Your task to perform on an android device: read, delete, or share a saved page in the chrome app Image 0: 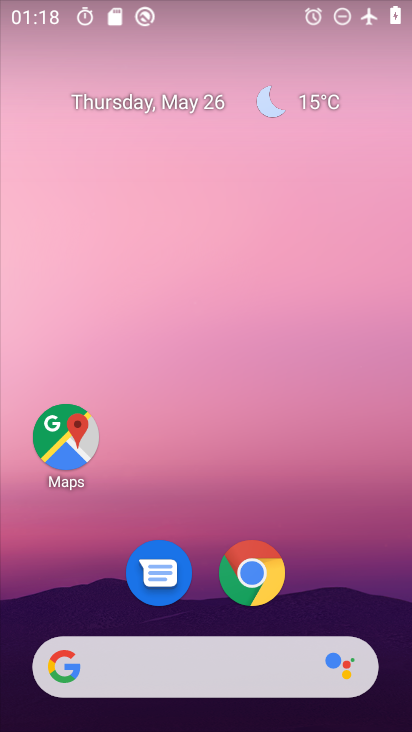
Step 0: click (345, 557)
Your task to perform on an android device: read, delete, or share a saved page in the chrome app Image 1: 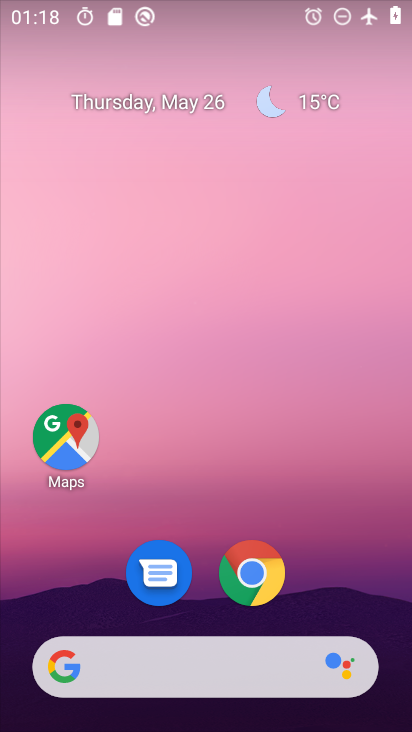
Step 1: click (256, 576)
Your task to perform on an android device: read, delete, or share a saved page in the chrome app Image 2: 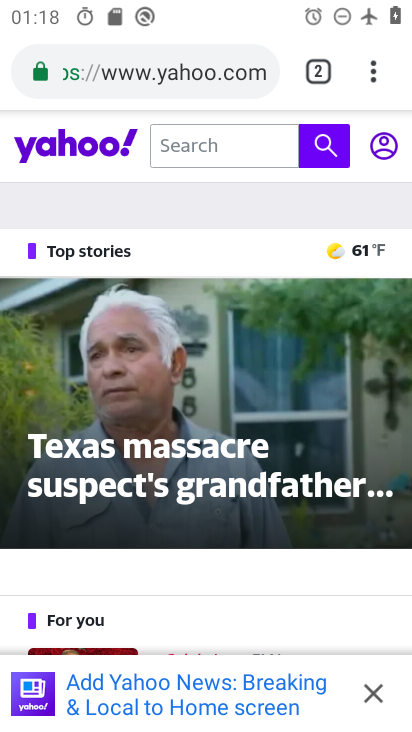
Step 2: click (373, 76)
Your task to perform on an android device: read, delete, or share a saved page in the chrome app Image 3: 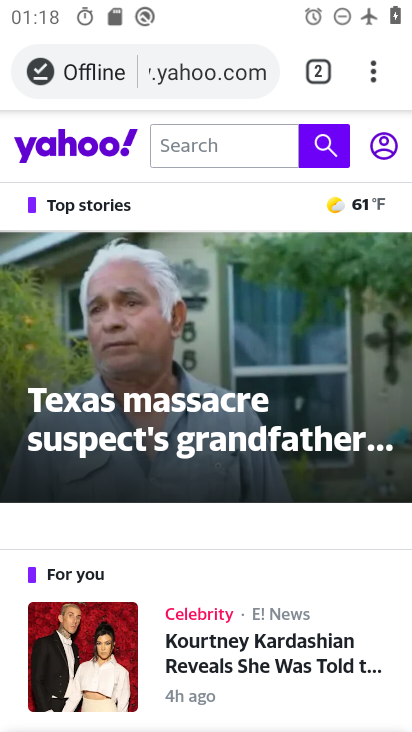
Step 3: click (372, 71)
Your task to perform on an android device: read, delete, or share a saved page in the chrome app Image 4: 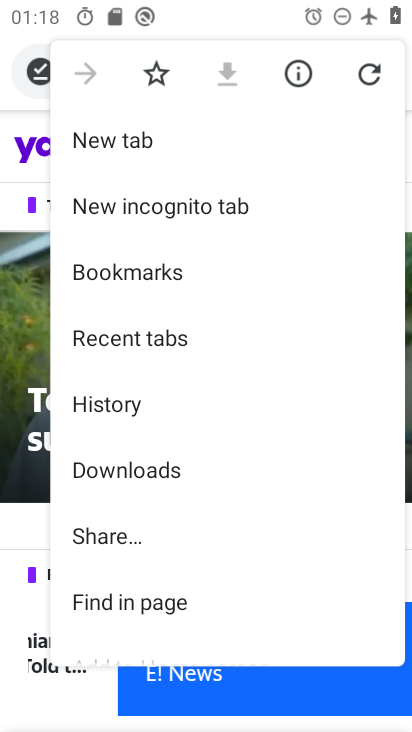
Step 4: click (102, 472)
Your task to perform on an android device: read, delete, or share a saved page in the chrome app Image 5: 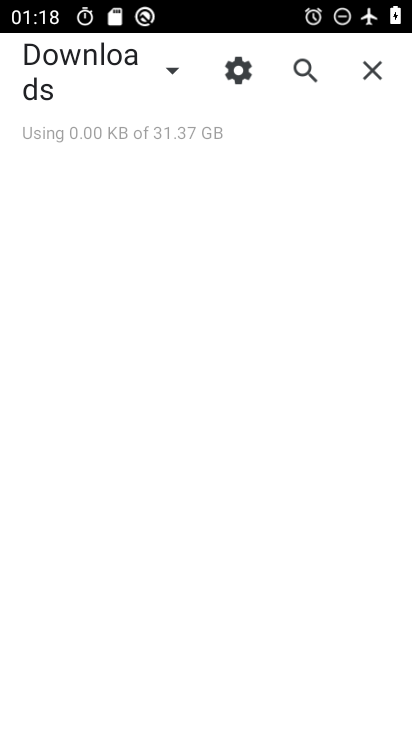
Step 5: click (167, 69)
Your task to perform on an android device: read, delete, or share a saved page in the chrome app Image 6: 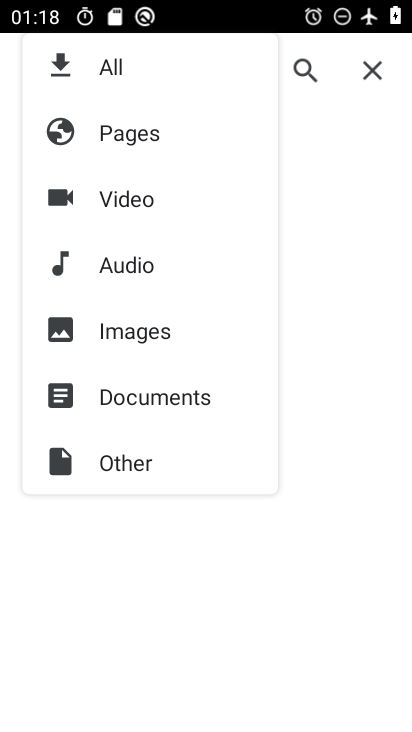
Step 6: click (117, 146)
Your task to perform on an android device: read, delete, or share a saved page in the chrome app Image 7: 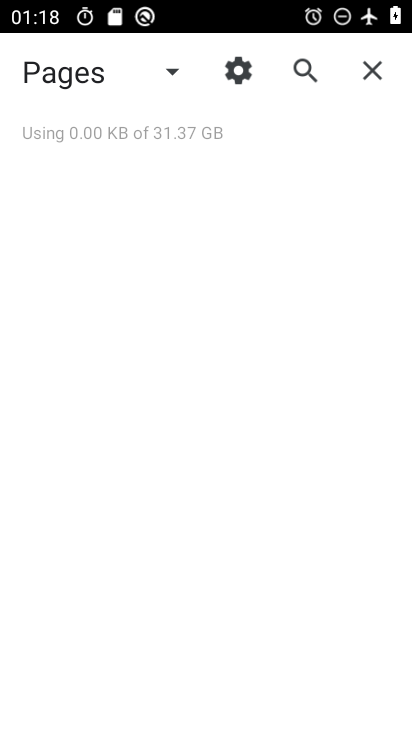
Step 7: task complete